Your task to perform on an android device: toggle wifi Image 0: 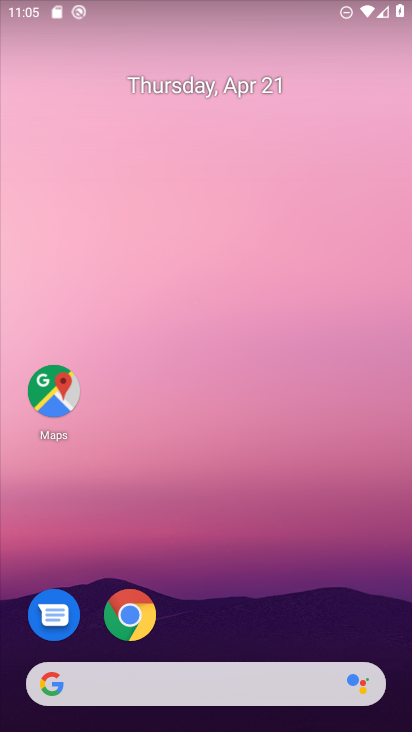
Step 0: drag from (227, 639) to (214, 68)
Your task to perform on an android device: toggle wifi Image 1: 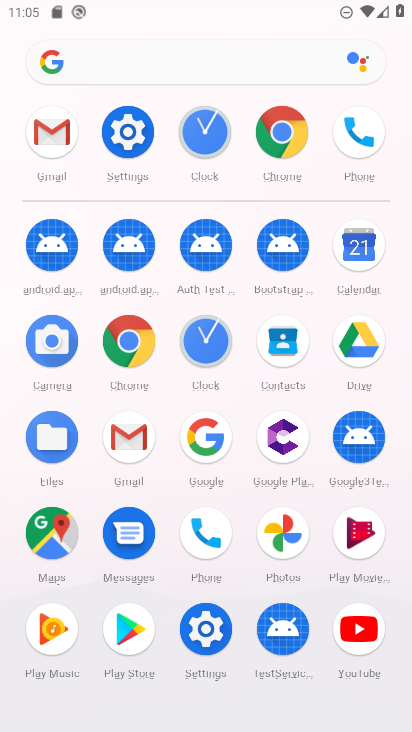
Step 1: click (120, 129)
Your task to perform on an android device: toggle wifi Image 2: 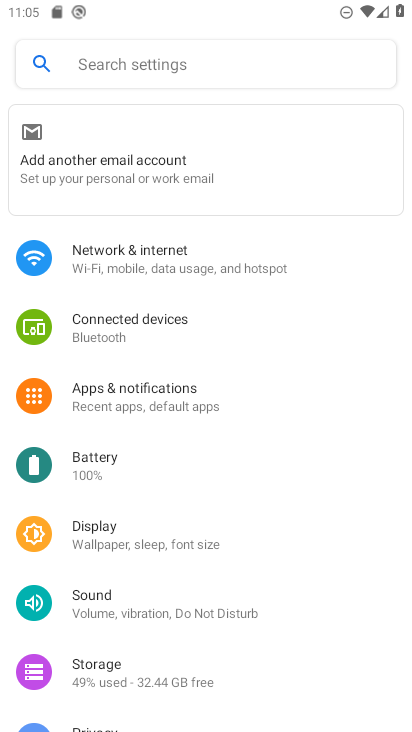
Step 2: click (188, 260)
Your task to perform on an android device: toggle wifi Image 3: 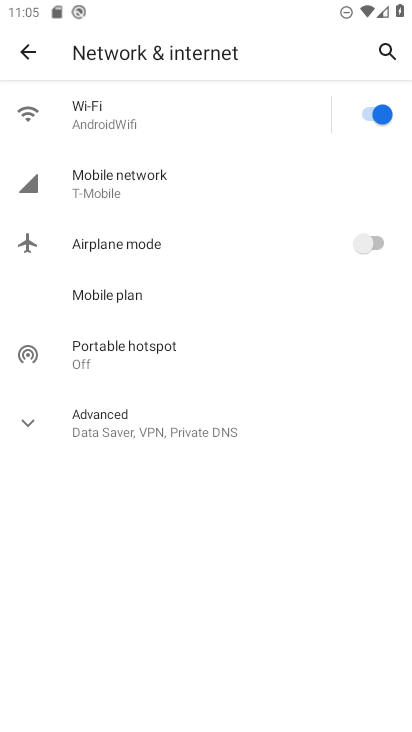
Step 3: click (370, 109)
Your task to perform on an android device: toggle wifi Image 4: 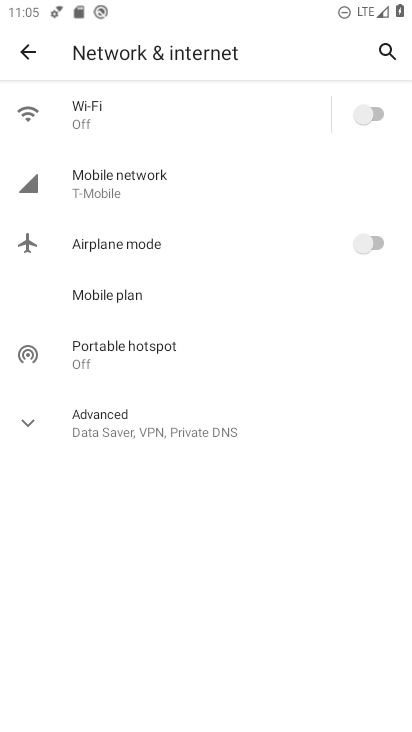
Step 4: task complete